Your task to perform on an android device: change alarm snooze length Image 0: 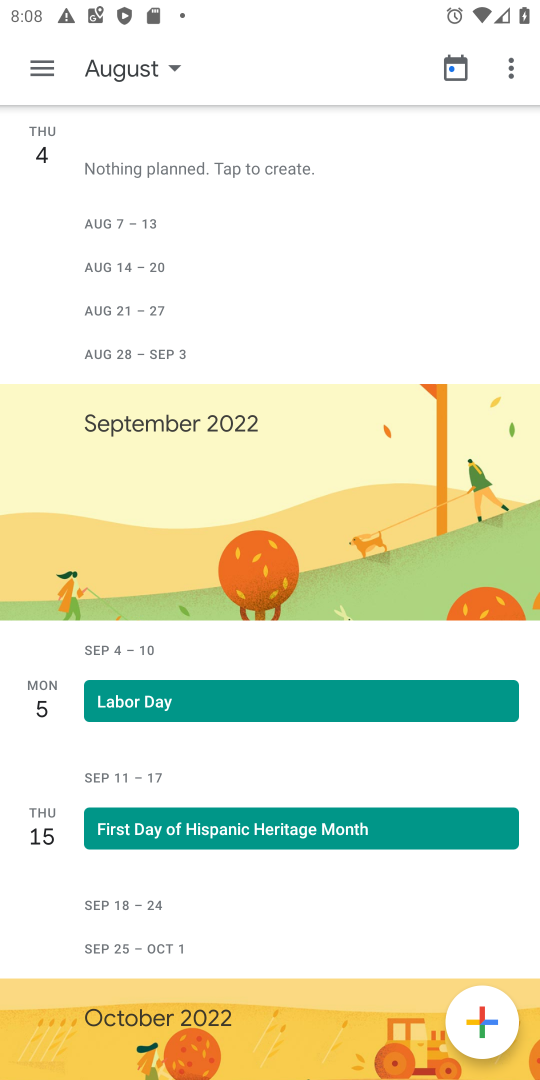
Step 0: press home button
Your task to perform on an android device: change alarm snooze length Image 1: 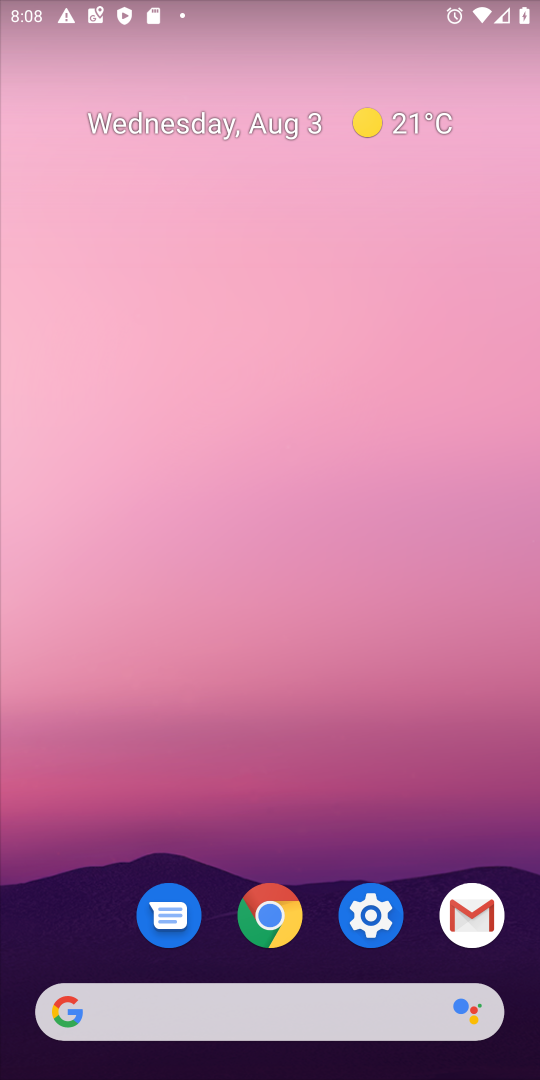
Step 1: drag from (365, 1030) to (394, 302)
Your task to perform on an android device: change alarm snooze length Image 2: 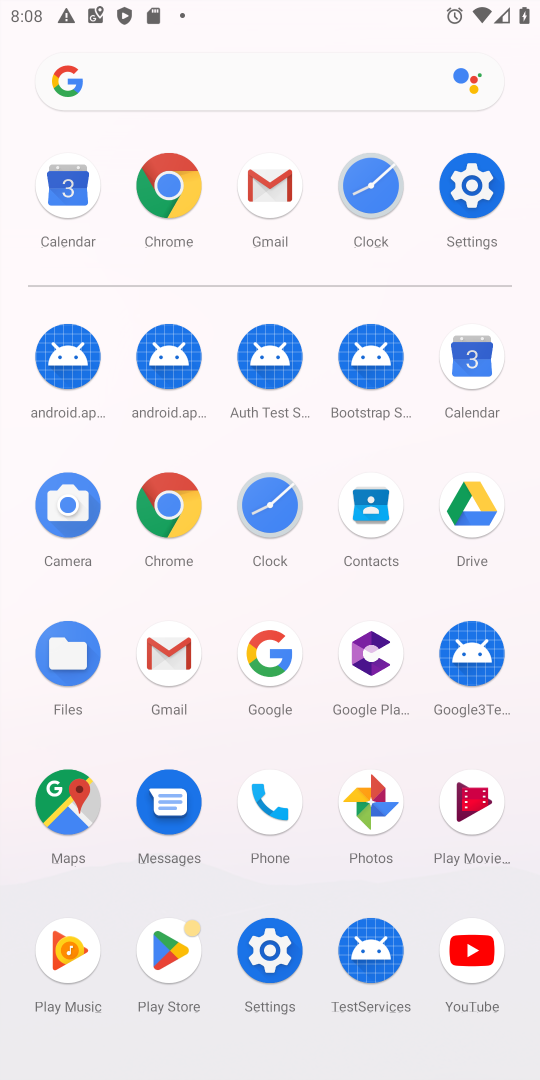
Step 2: click (168, 639)
Your task to perform on an android device: change alarm snooze length Image 3: 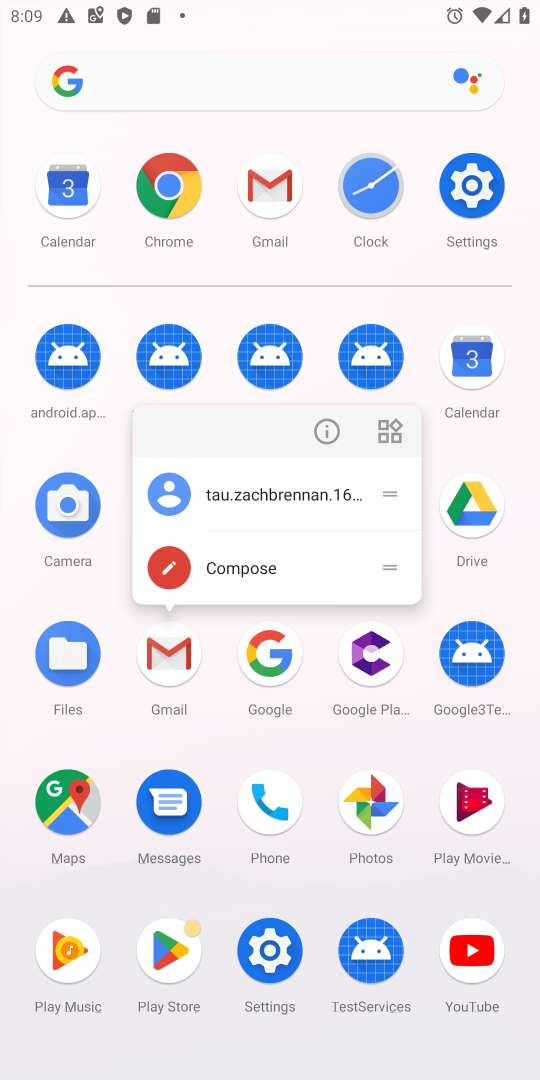
Step 3: click (161, 651)
Your task to perform on an android device: change alarm snooze length Image 4: 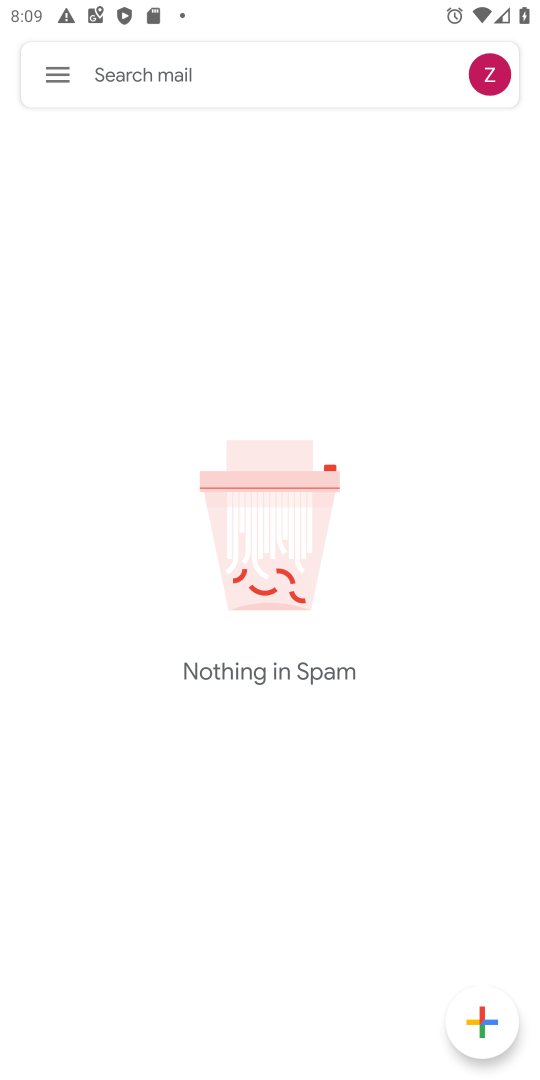
Step 4: click (51, 60)
Your task to perform on an android device: change alarm snooze length Image 5: 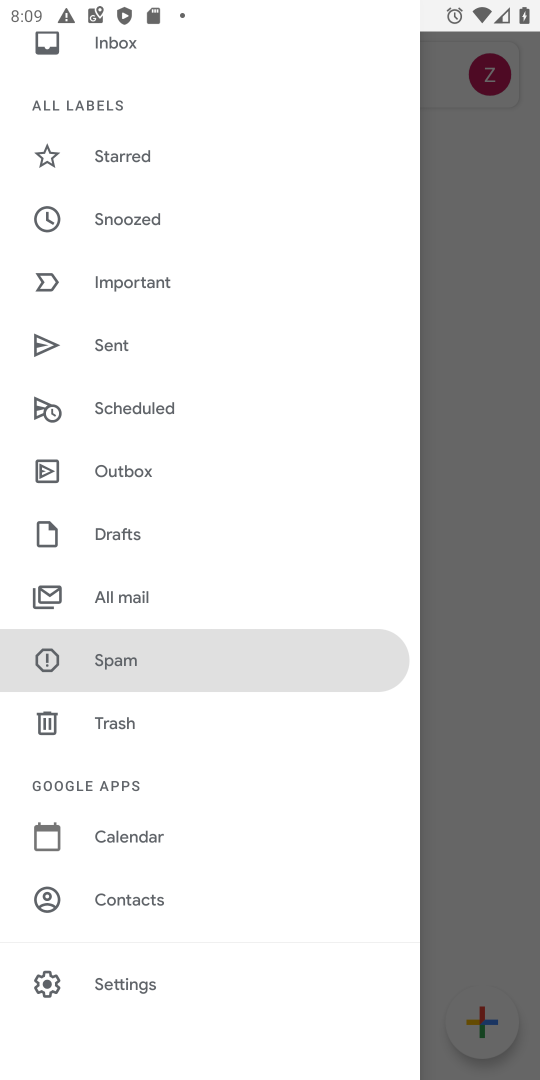
Step 5: press home button
Your task to perform on an android device: change alarm snooze length Image 6: 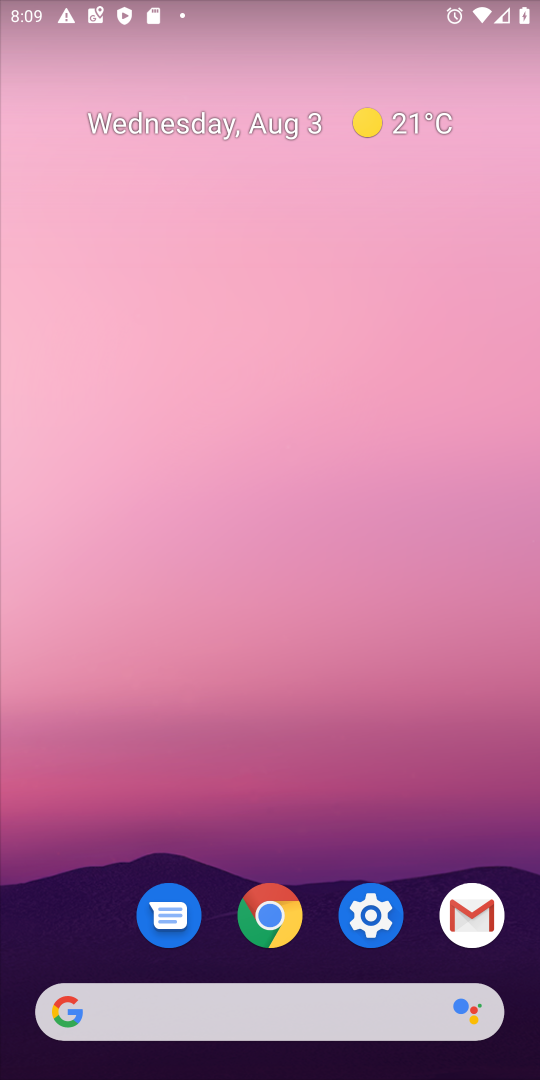
Step 6: drag from (393, 876) to (452, 446)
Your task to perform on an android device: change alarm snooze length Image 7: 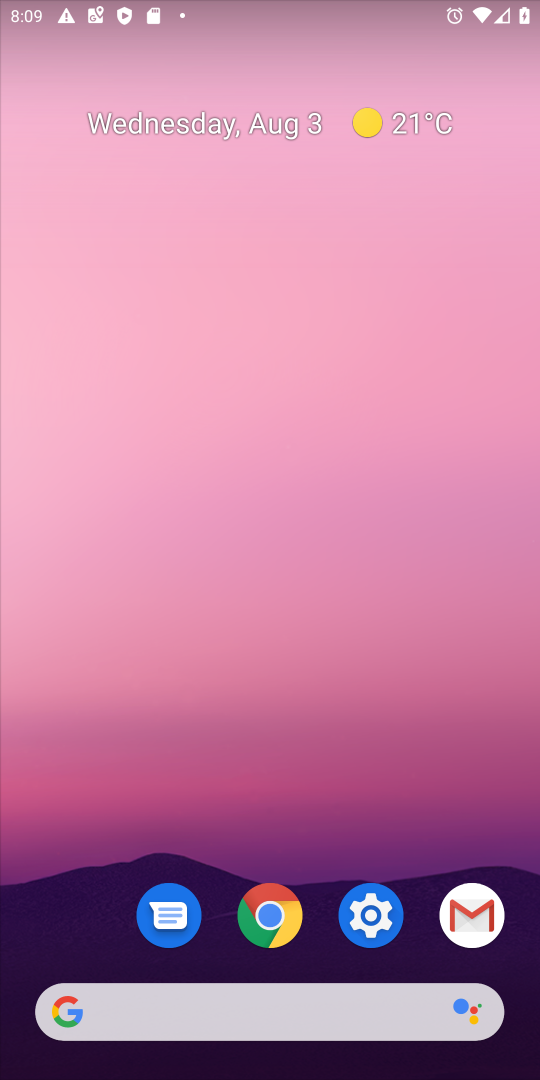
Step 7: drag from (313, 1026) to (342, 205)
Your task to perform on an android device: change alarm snooze length Image 8: 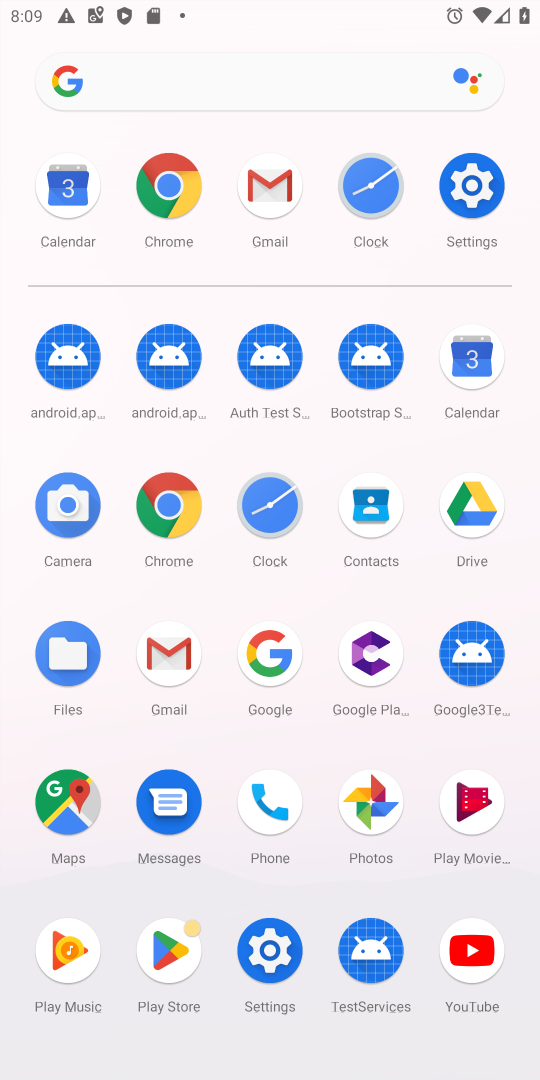
Step 8: click (257, 475)
Your task to perform on an android device: change alarm snooze length Image 9: 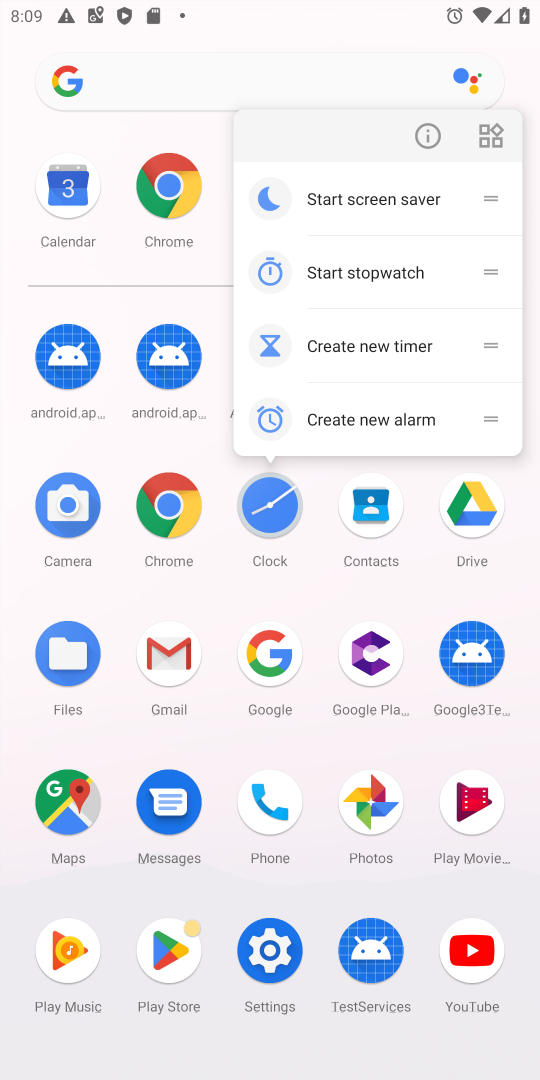
Step 9: click (275, 531)
Your task to perform on an android device: change alarm snooze length Image 10: 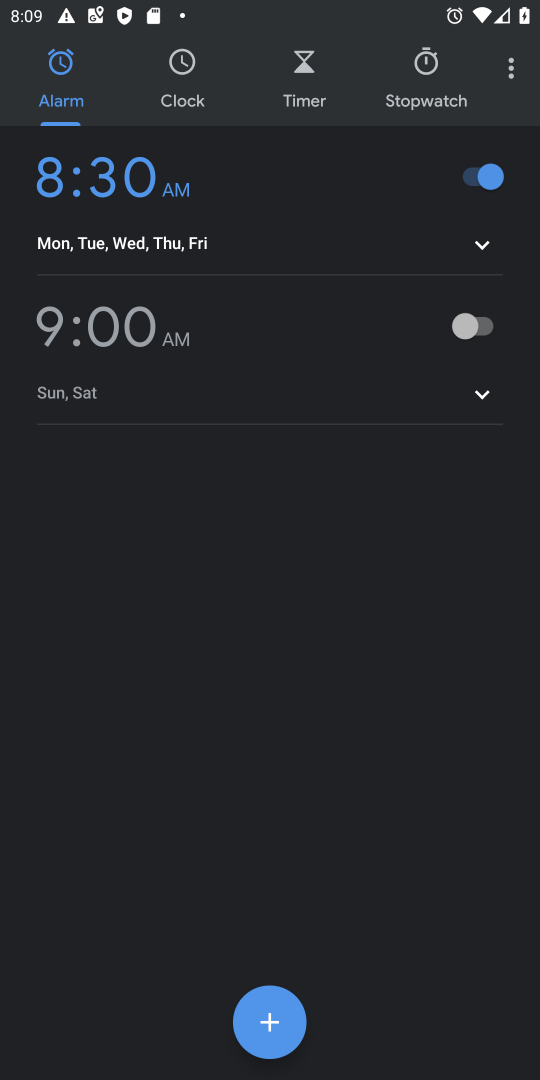
Step 10: click (506, 81)
Your task to perform on an android device: change alarm snooze length Image 11: 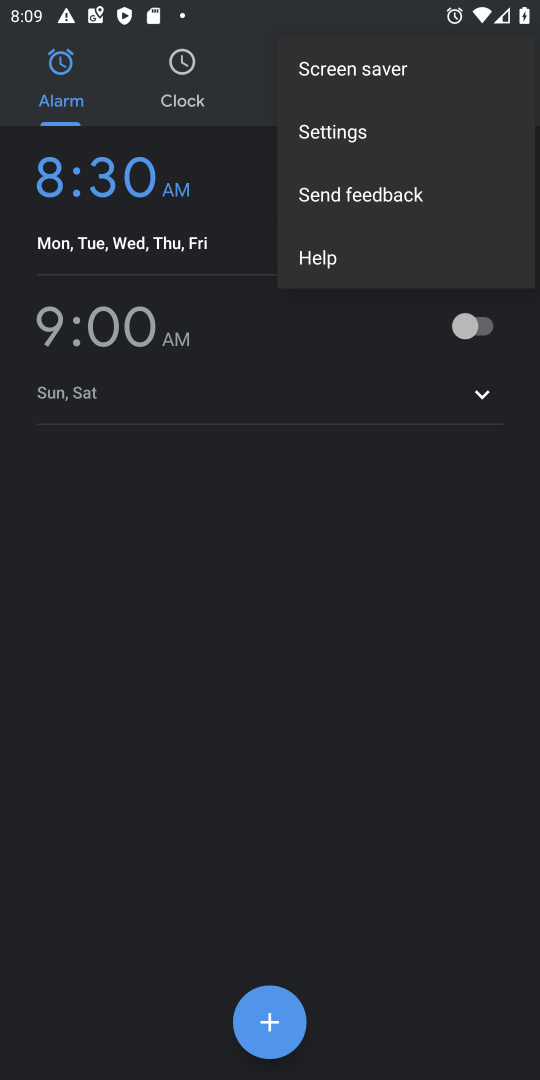
Step 11: click (368, 154)
Your task to perform on an android device: change alarm snooze length Image 12: 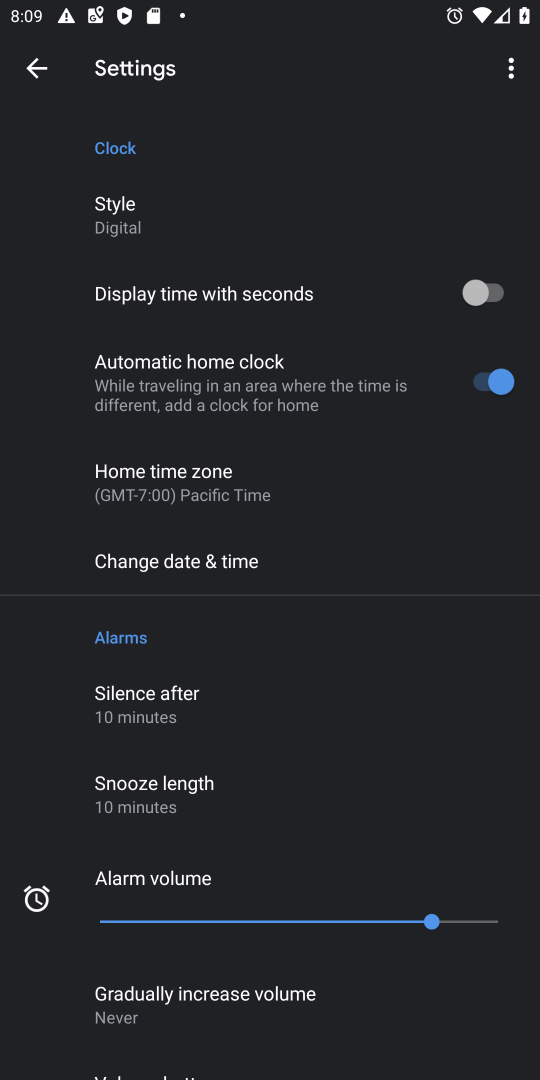
Step 12: click (188, 798)
Your task to perform on an android device: change alarm snooze length Image 13: 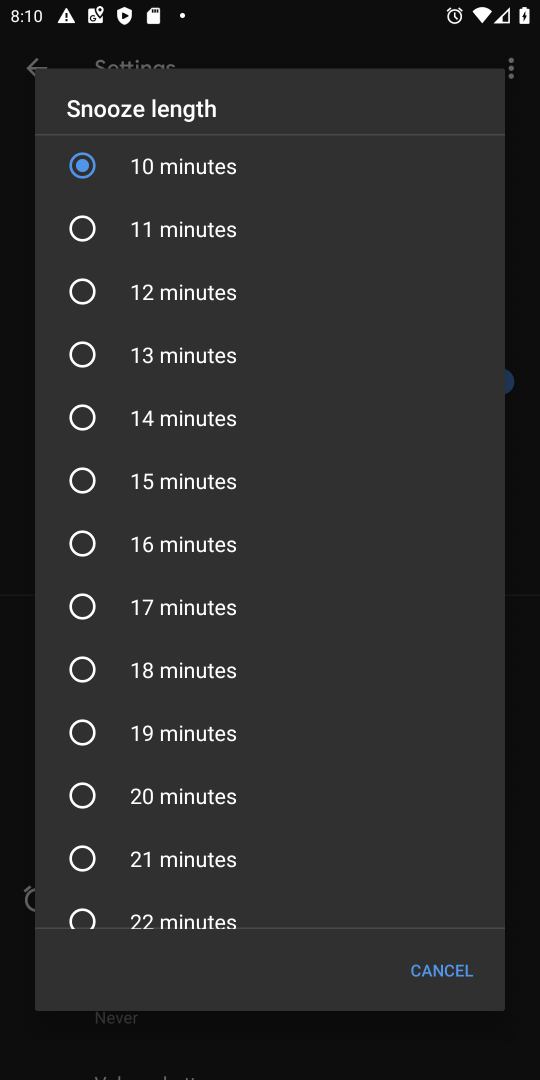
Step 13: click (140, 539)
Your task to perform on an android device: change alarm snooze length Image 14: 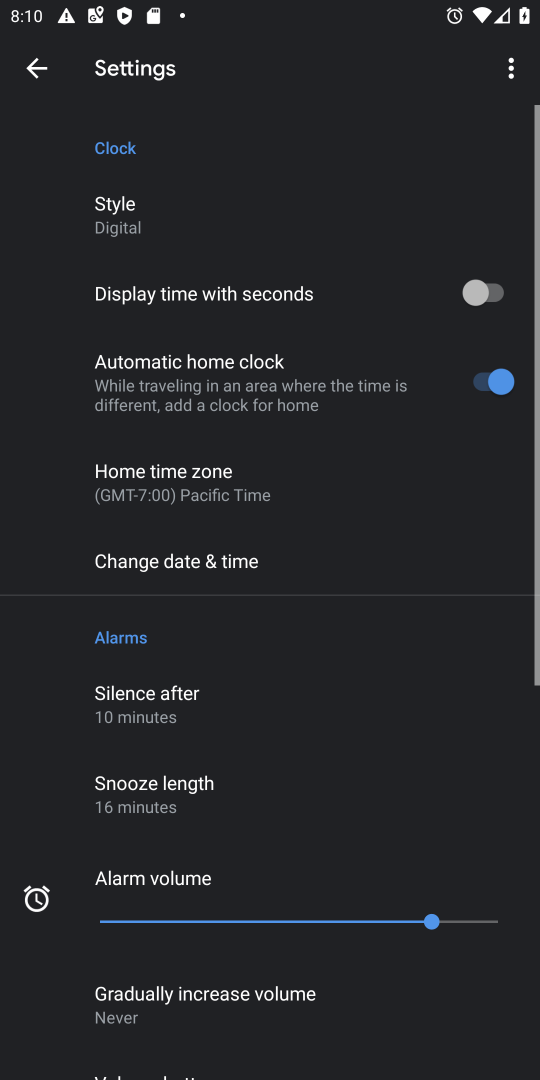
Step 14: task complete